Your task to perform on an android device: open a new tab in the chrome app Image 0: 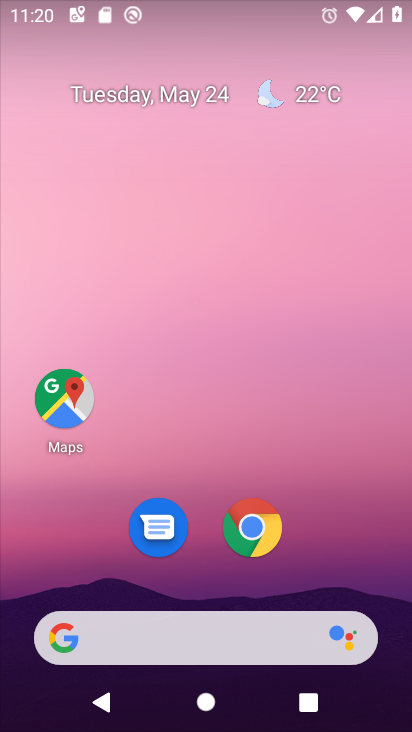
Step 0: press home button
Your task to perform on an android device: open a new tab in the chrome app Image 1: 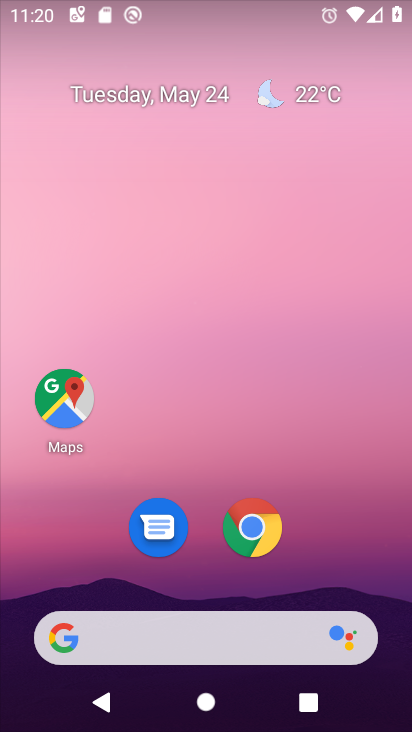
Step 1: click (244, 535)
Your task to perform on an android device: open a new tab in the chrome app Image 2: 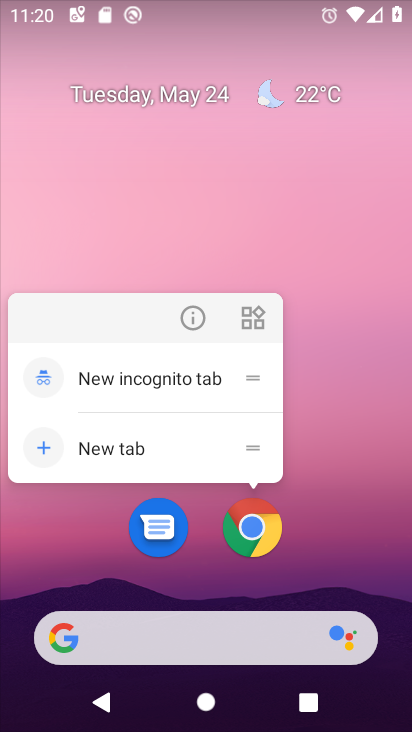
Step 2: click (252, 539)
Your task to perform on an android device: open a new tab in the chrome app Image 3: 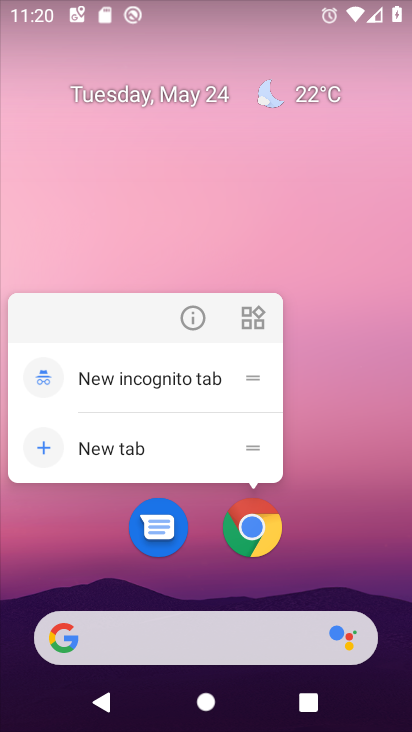
Step 3: click (255, 535)
Your task to perform on an android device: open a new tab in the chrome app Image 4: 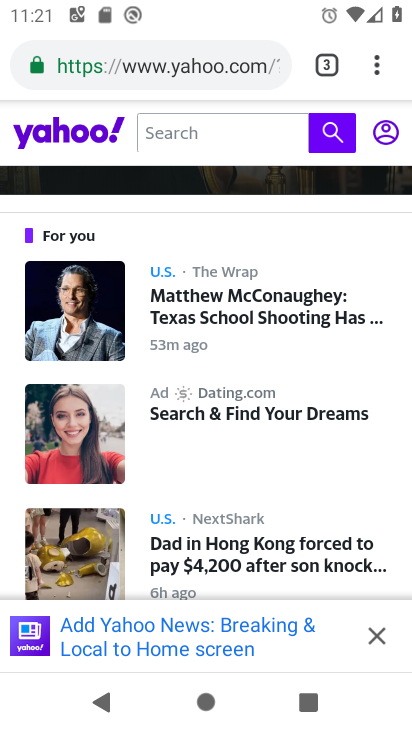
Step 4: task complete